Your task to perform on an android device: empty trash in the gmail app Image 0: 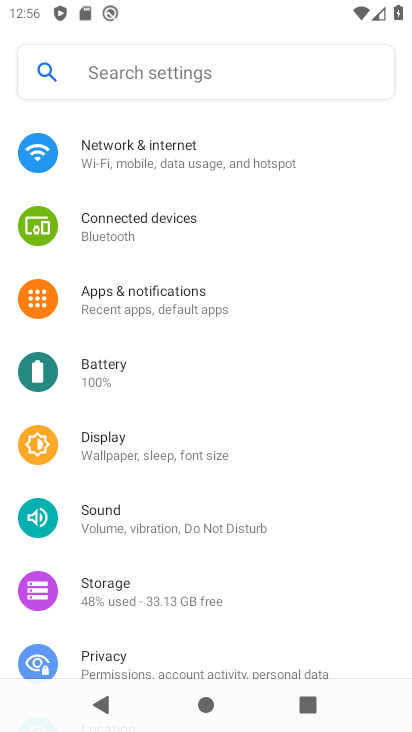
Step 0: press home button
Your task to perform on an android device: empty trash in the gmail app Image 1: 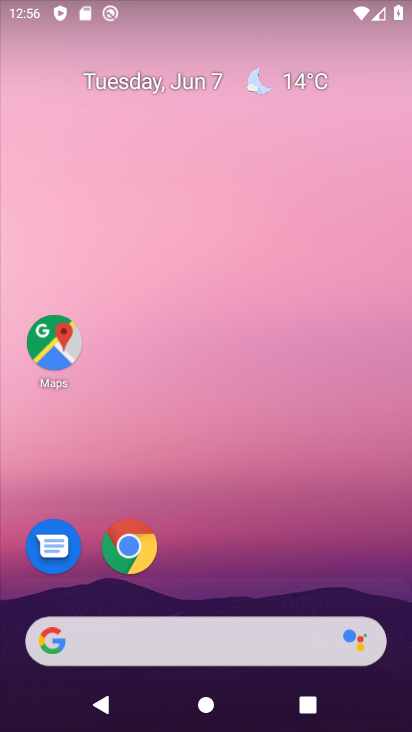
Step 1: drag from (232, 620) to (210, 66)
Your task to perform on an android device: empty trash in the gmail app Image 2: 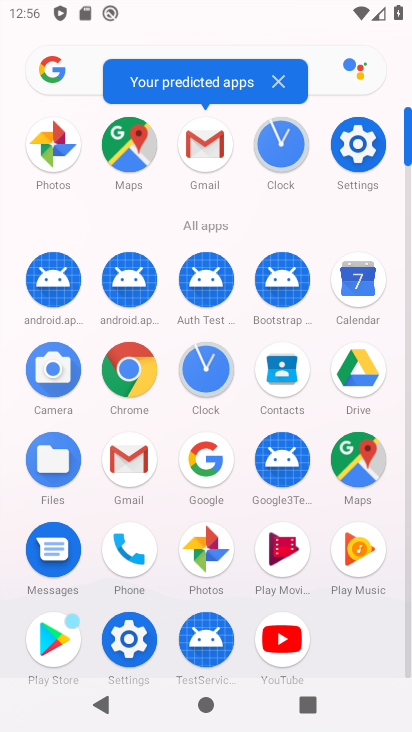
Step 2: click (134, 482)
Your task to perform on an android device: empty trash in the gmail app Image 3: 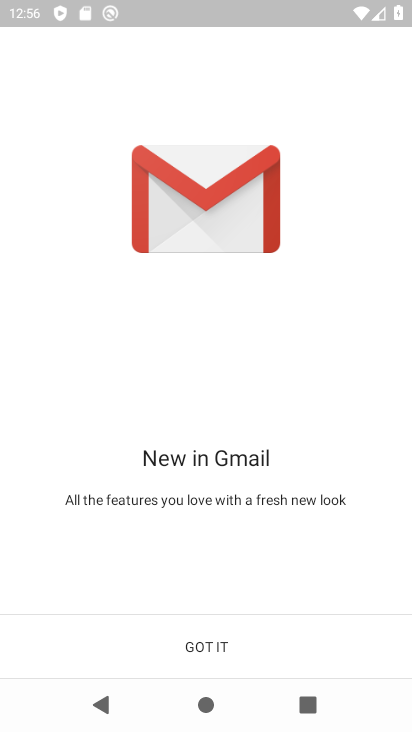
Step 3: click (162, 627)
Your task to perform on an android device: empty trash in the gmail app Image 4: 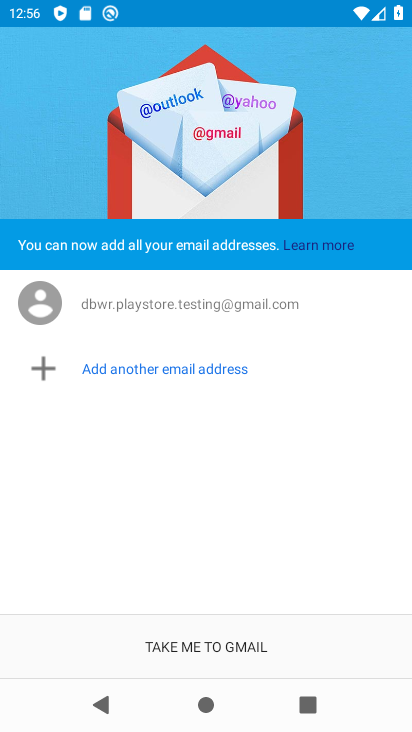
Step 4: click (161, 625)
Your task to perform on an android device: empty trash in the gmail app Image 5: 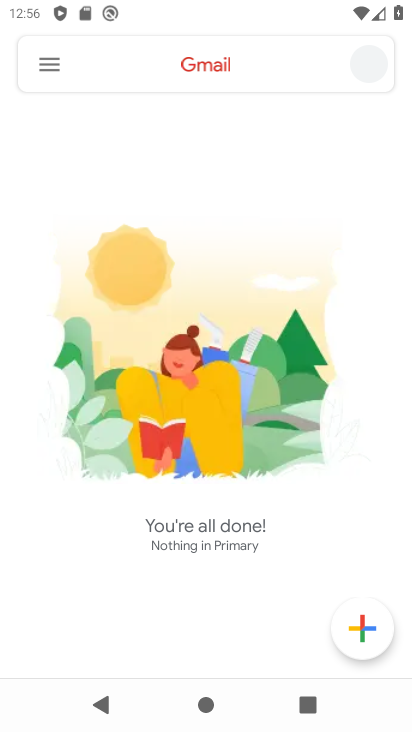
Step 5: click (57, 73)
Your task to perform on an android device: empty trash in the gmail app Image 6: 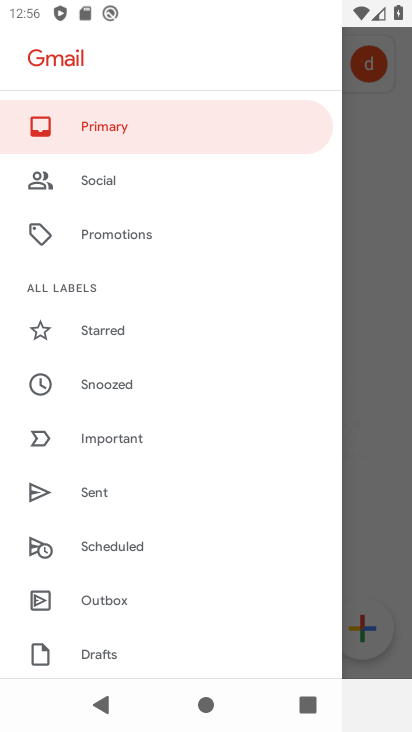
Step 6: drag from (109, 625) to (85, 136)
Your task to perform on an android device: empty trash in the gmail app Image 7: 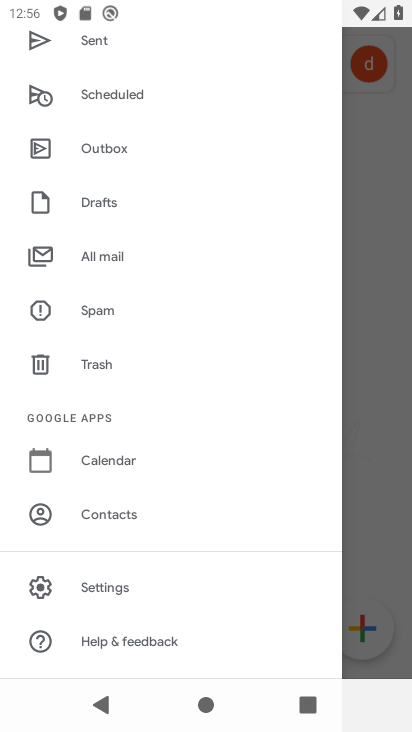
Step 7: click (86, 364)
Your task to perform on an android device: empty trash in the gmail app Image 8: 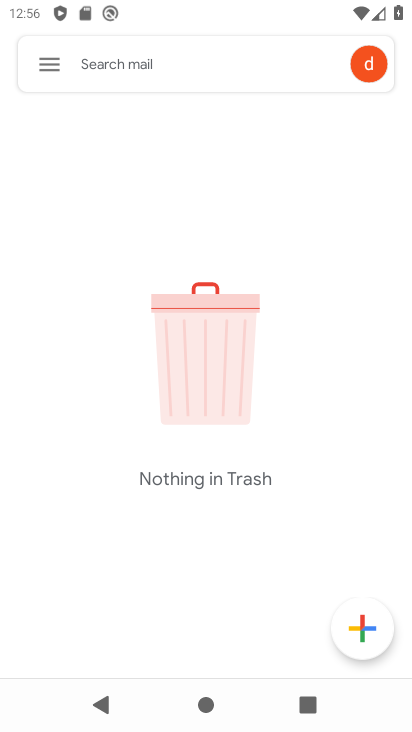
Step 8: task complete